Your task to perform on an android device: Turn off the flashlight Image 0: 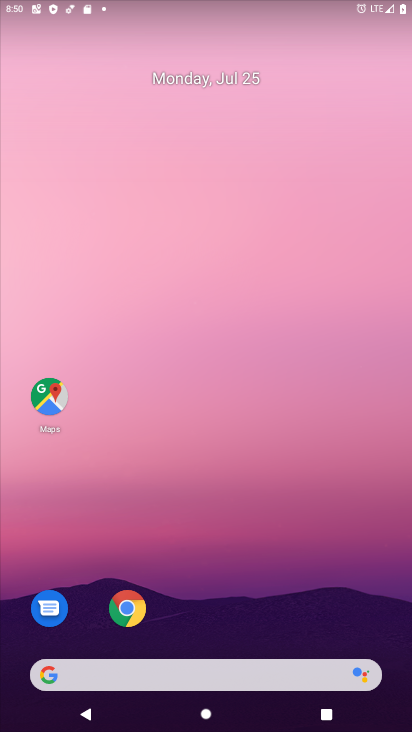
Step 0: drag from (231, 719) to (230, 36)
Your task to perform on an android device: Turn off the flashlight Image 1: 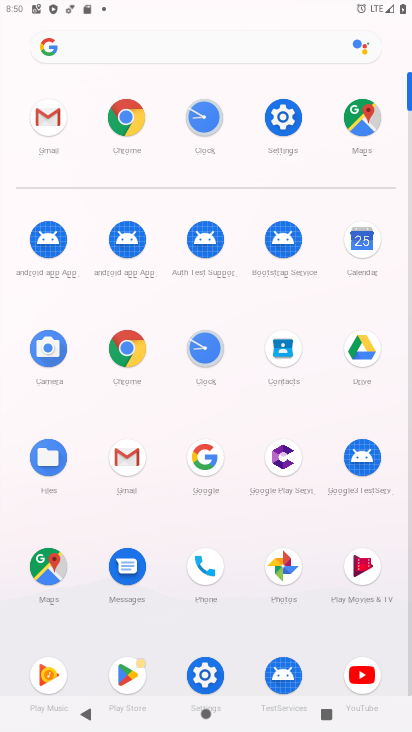
Step 1: click (285, 116)
Your task to perform on an android device: Turn off the flashlight Image 2: 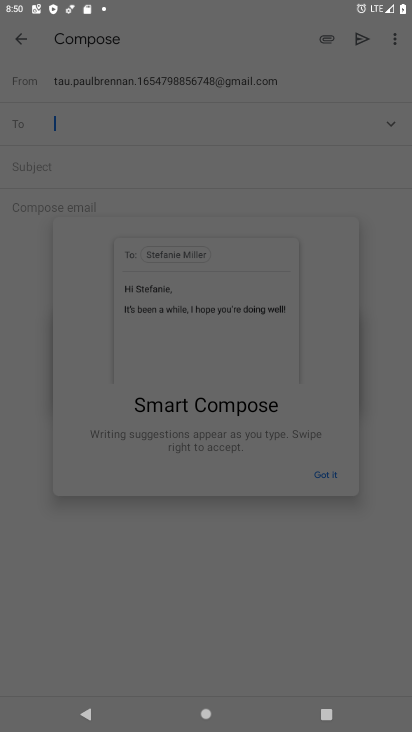
Step 2: press home button
Your task to perform on an android device: Turn off the flashlight Image 3: 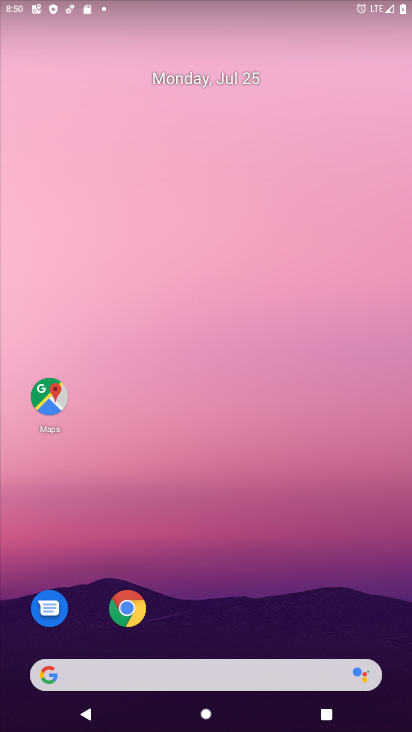
Step 3: drag from (231, 721) to (235, 80)
Your task to perform on an android device: Turn off the flashlight Image 4: 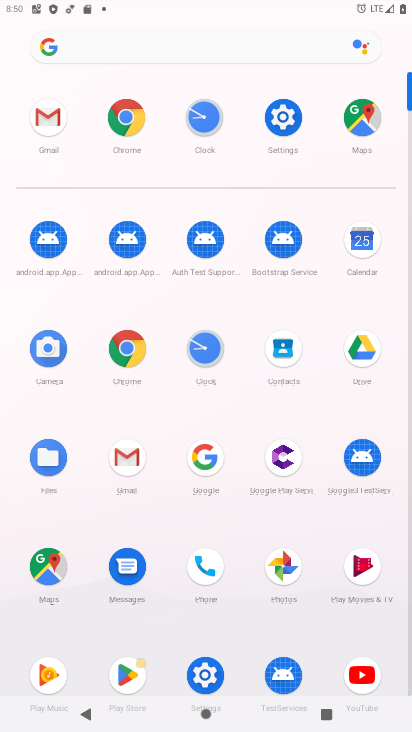
Step 4: click (279, 127)
Your task to perform on an android device: Turn off the flashlight Image 5: 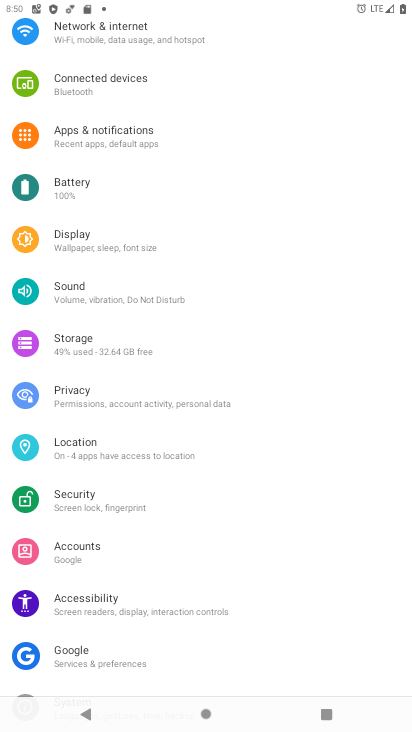
Step 5: task complete